Your task to perform on an android device: Go to Yahoo.com Image 0: 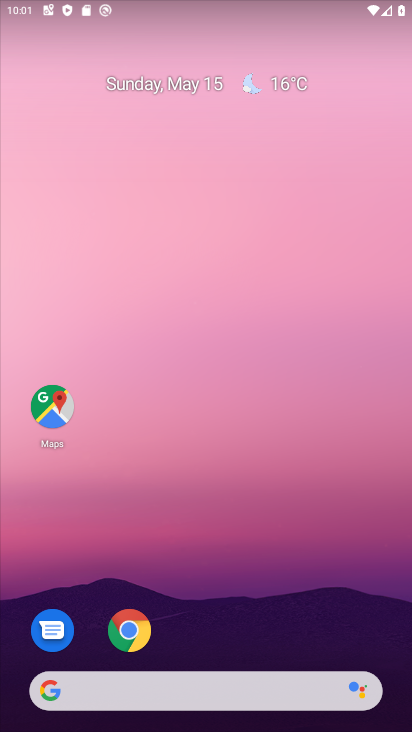
Step 0: click (145, 629)
Your task to perform on an android device: Go to Yahoo.com Image 1: 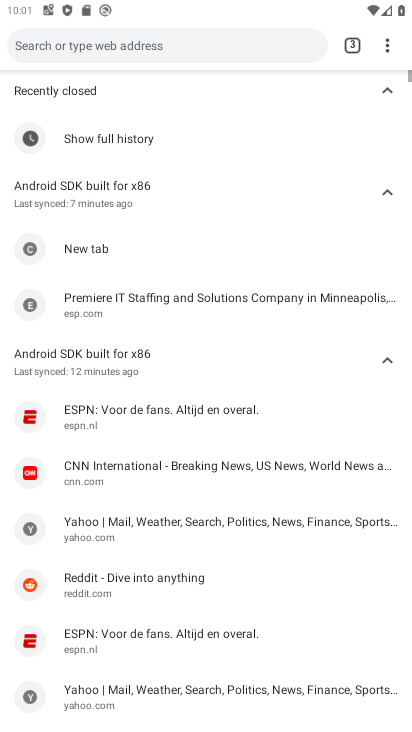
Step 1: click (349, 46)
Your task to perform on an android device: Go to Yahoo.com Image 2: 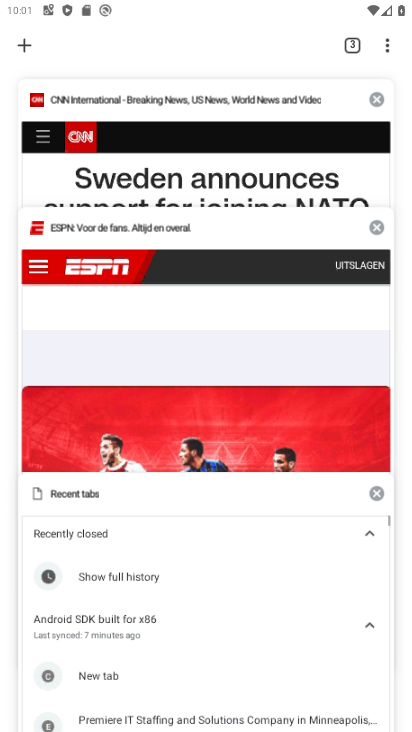
Step 2: click (28, 39)
Your task to perform on an android device: Go to Yahoo.com Image 3: 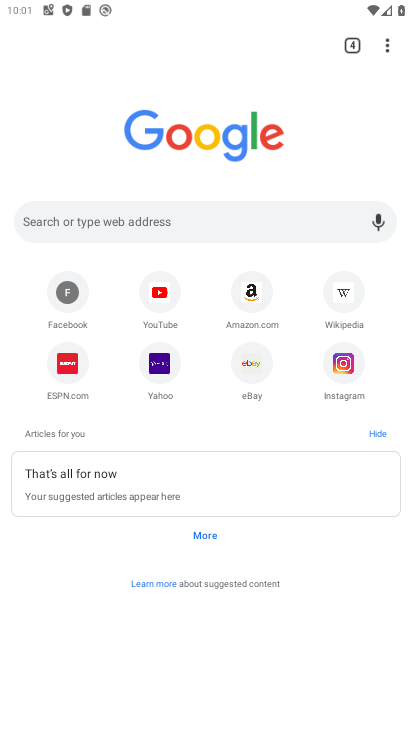
Step 3: click (162, 370)
Your task to perform on an android device: Go to Yahoo.com Image 4: 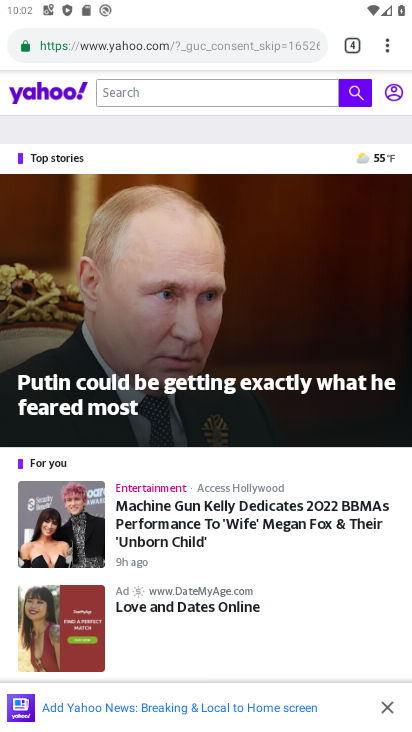
Step 4: task complete